Your task to perform on an android device: Open network settings Image 0: 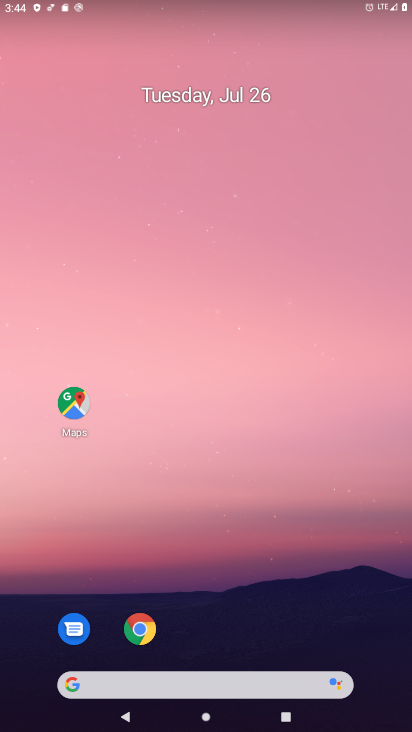
Step 0: drag from (220, 485) to (199, 155)
Your task to perform on an android device: Open network settings Image 1: 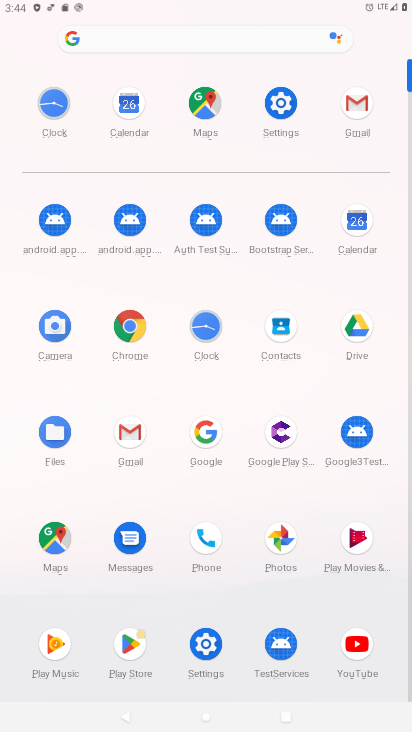
Step 1: click (281, 104)
Your task to perform on an android device: Open network settings Image 2: 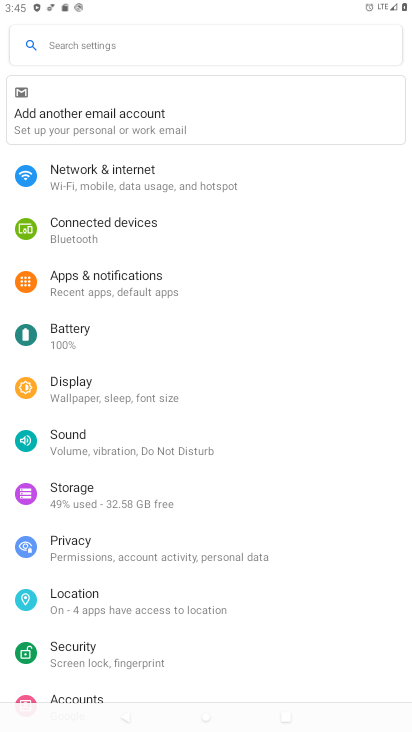
Step 2: click (65, 179)
Your task to perform on an android device: Open network settings Image 3: 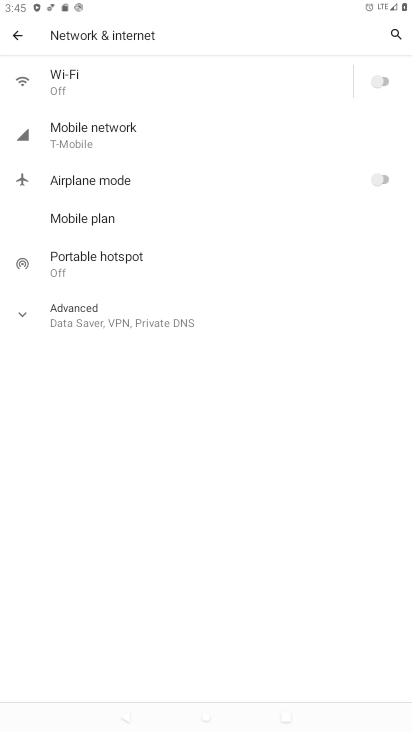
Step 3: task complete